Your task to perform on an android device: Clear all items from cart on walmart. Search for "logitech g502" on walmart, select the first entry, and add it to the cart. Image 0: 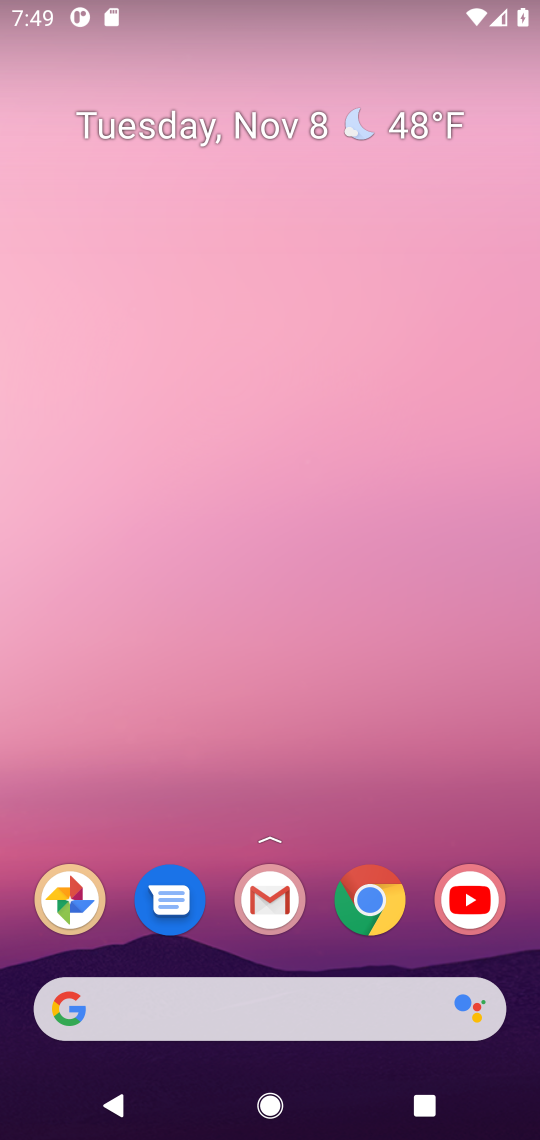
Step 0: click (310, 373)
Your task to perform on an android device: Clear all items from cart on walmart. Search for "logitech g502" on walmart, select the first entry, and add it to the cart. Image 1: 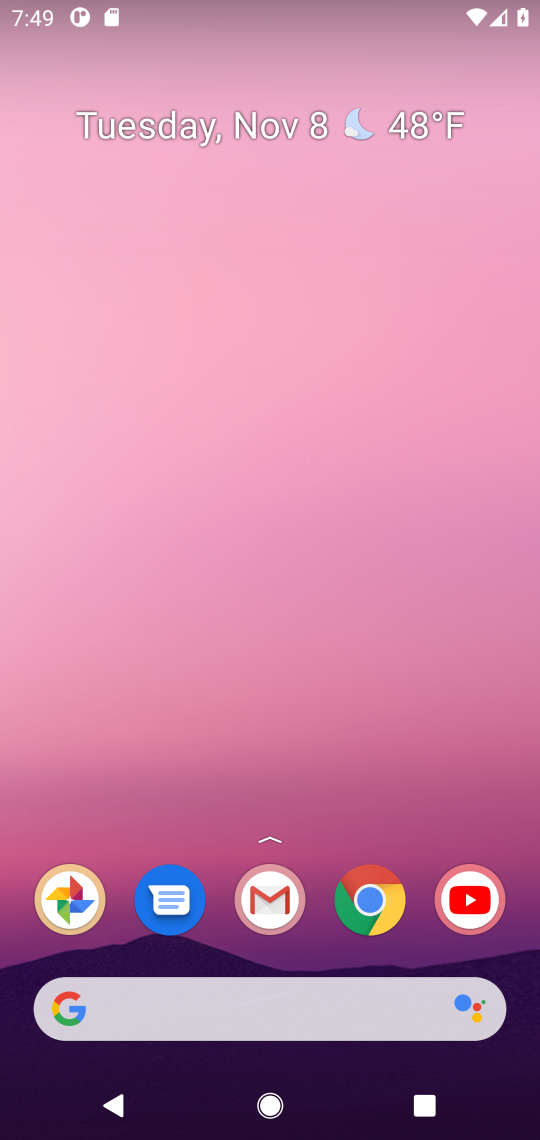
Step 1: drag from (247, 1049) to (226, 299)
Your task to perform on an android device: Clear all items from cart on walmart. Search for "logitech g502" on walmart, select the first entry, and add it to the cart. Image 2: 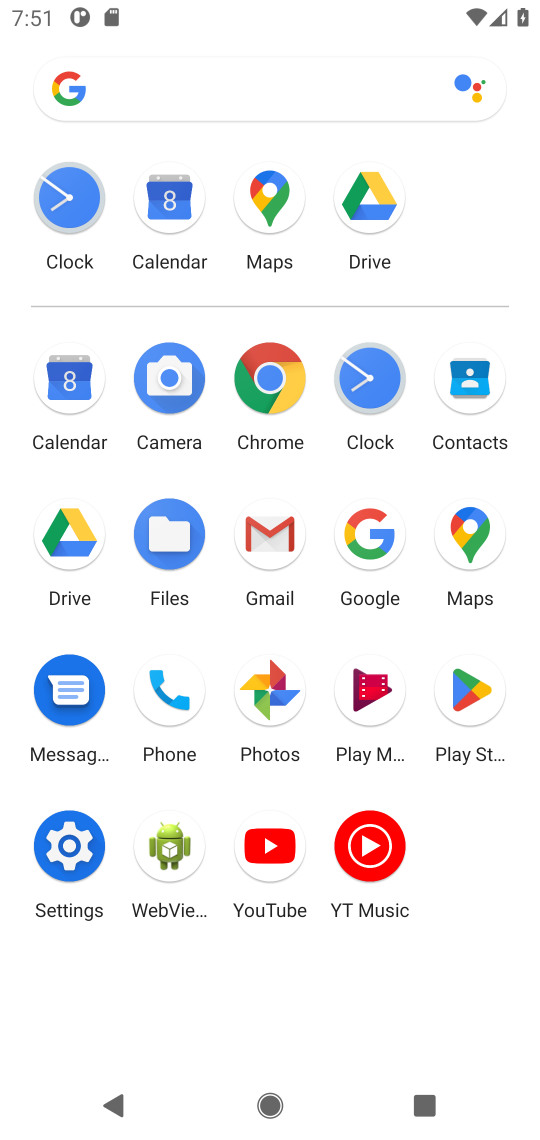
Step 2: click (379, 519)
Your task to perform on an android device: Clear all items from cart on walmart. Search for "logitech g502" on walmart, select the first entry, and add it to the cart. Image 3: 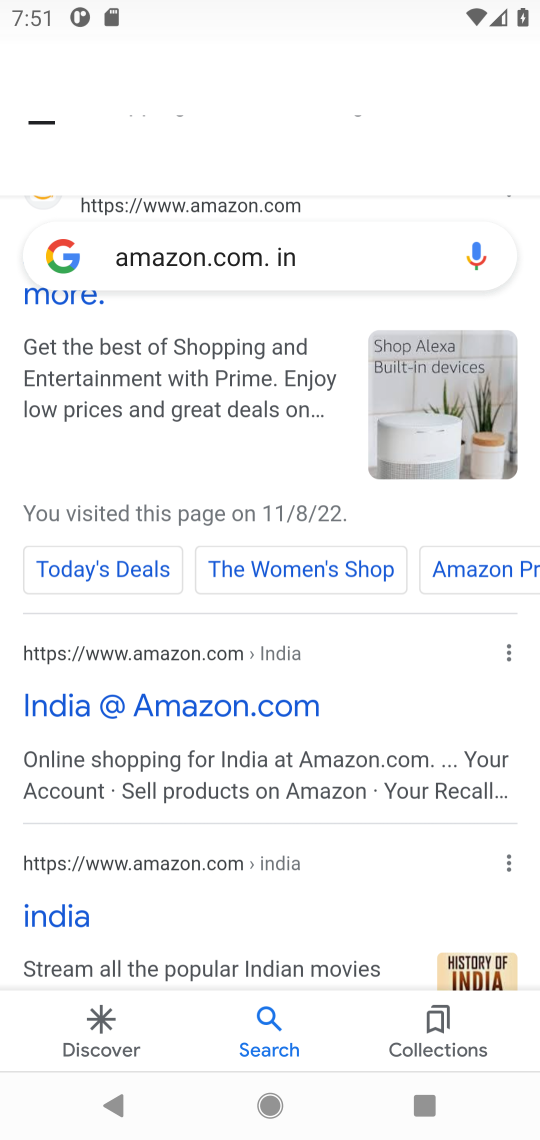
Step 3: click (275, 250)
Your task to perform on an android device: Clear all items from cart on walmart. Search for "logitech g502" on walmart, select the first entry, and add it to the cart. Image 4: 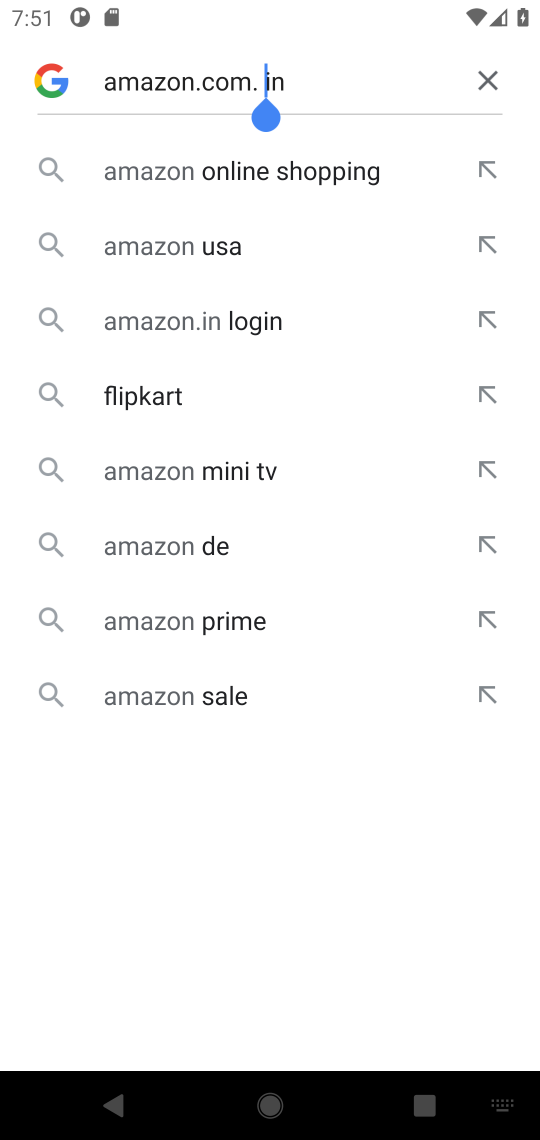
Step 4: click (473, 76)
Your task to perform on an android device: Clear all items from cart on walmart. Search for "logitech g502" on walmart, select the first entry, and add it to the cart. Image 5: 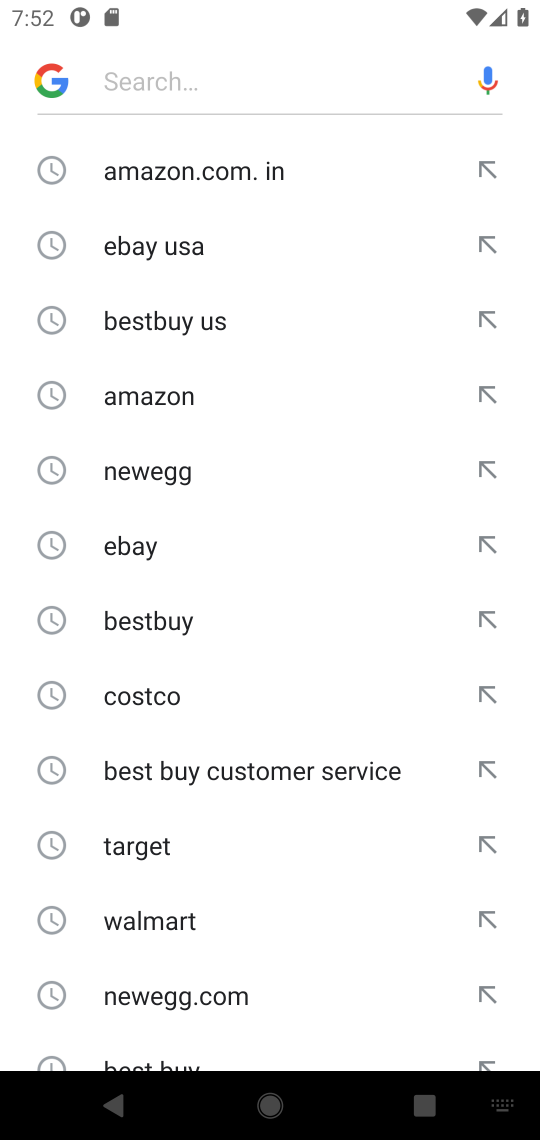
Step 5: click (210, 71)
Your task to perform on an android device: Clear all items from cart on walmart. Search for "logitech g502" on walmart, select the first entry, and add it to the cart. Image 6: 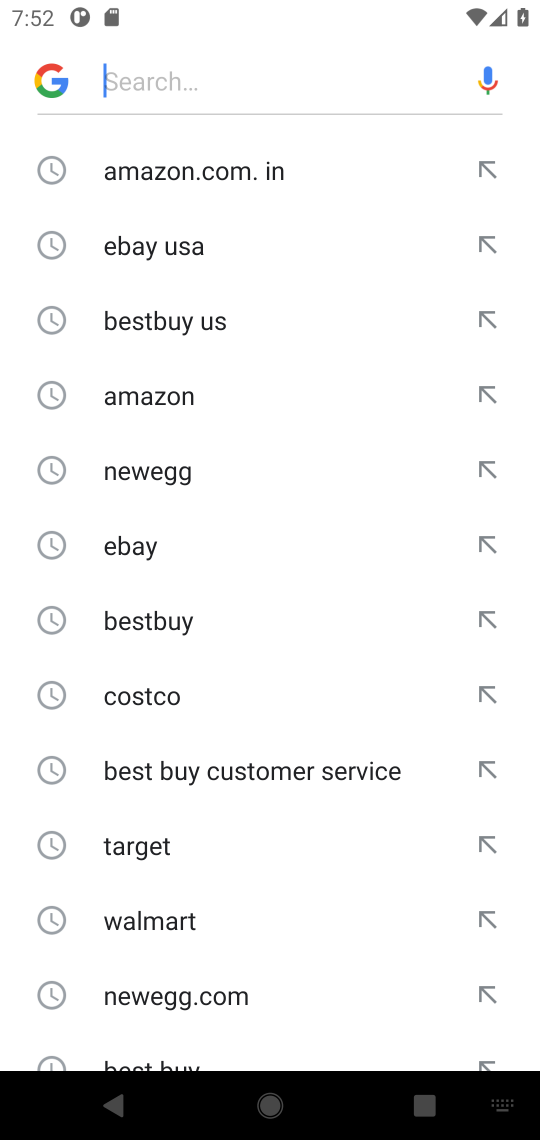
Step 6: type "walmart "
Your task to perform on an android device: Clear all items from cart on walmart. Search for "logitech g502" on walmart, select the first entry, and add it to the cart. Image 7: 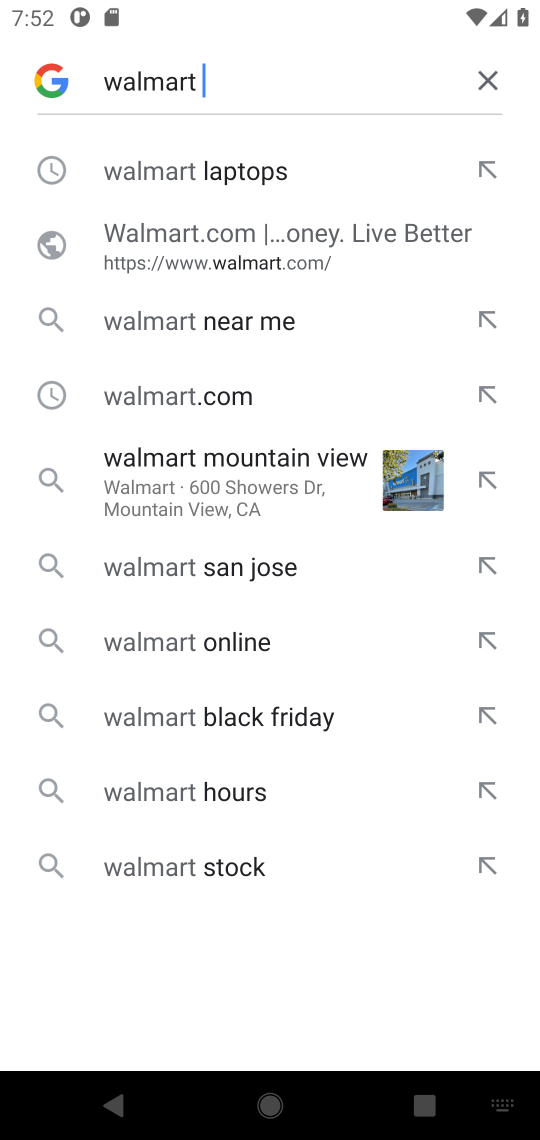
Step 7: drag from (168, 163) to (43, 522)
Your task to perform on an android device: Clear all items from cart on walmart. Search for "logitech g502" on walmart, select the first entry, and add it to the cart. Image 8: 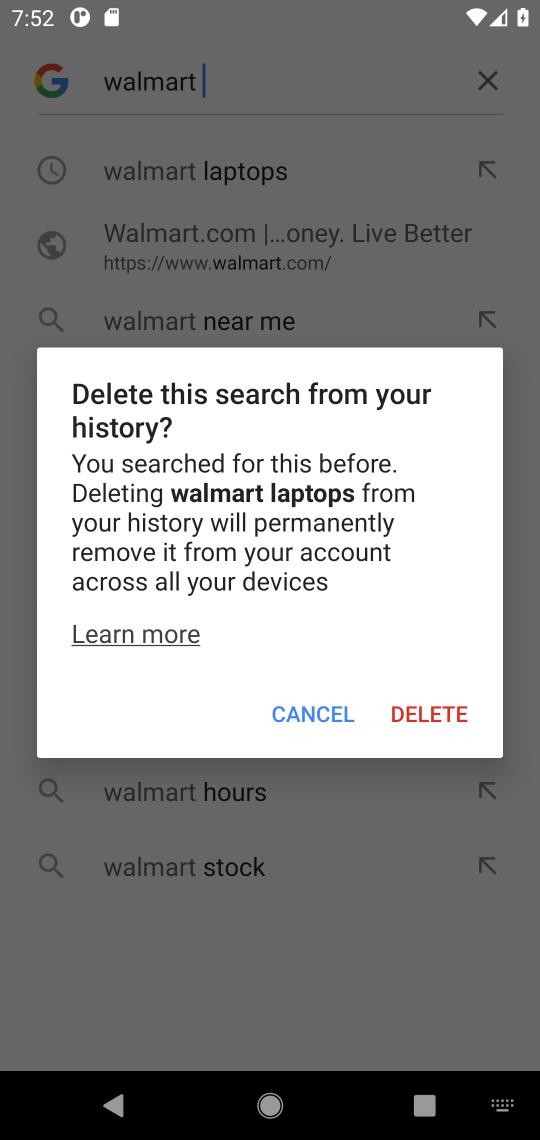
Step 8: click (282, 727)
Your task to perform on an android device: Clear all items from cart on walmart. Search for "logitech g502" on walmart, select the first entry, and add it to the cart. Image 9: 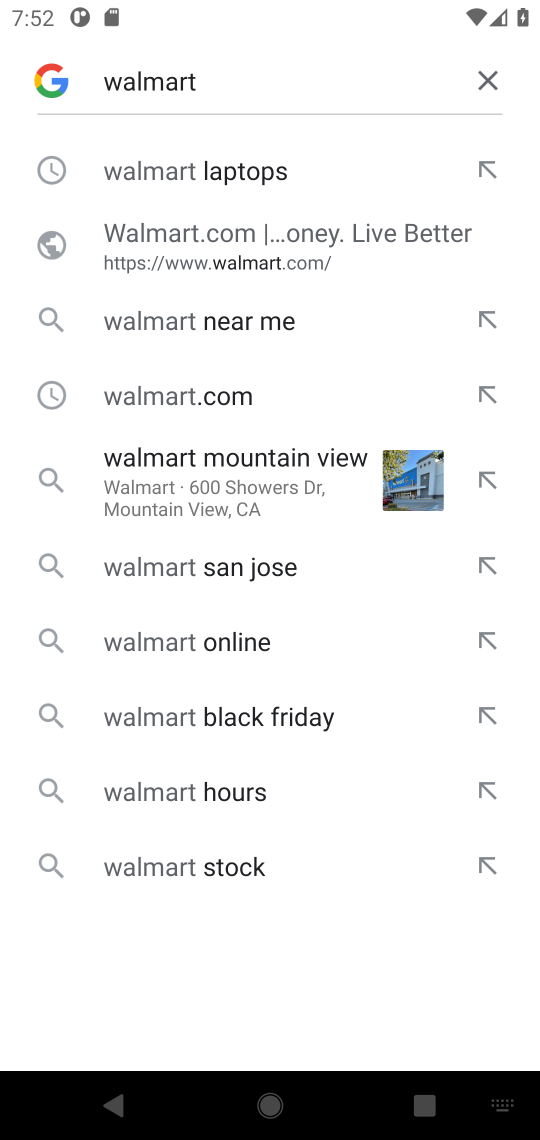
Step 9: click (201, 228)
Your task to perform on an android device: Clear all items from cart on walmart. Search for "logitech g502" on walmart, select the first entry, and add it to the cart. Image 10: 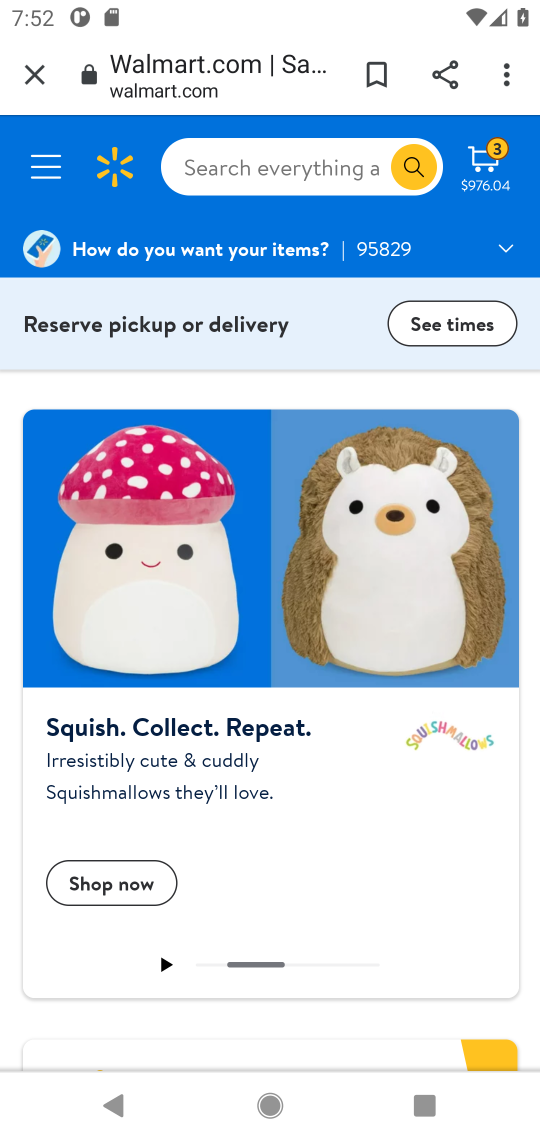
Step 10: click (228, 156)
Your task to perform on an android device: Clear all items from cart on walmart. Search for "logitech g502" on walmart, select the first entry, and add it to the cart. Image 11: 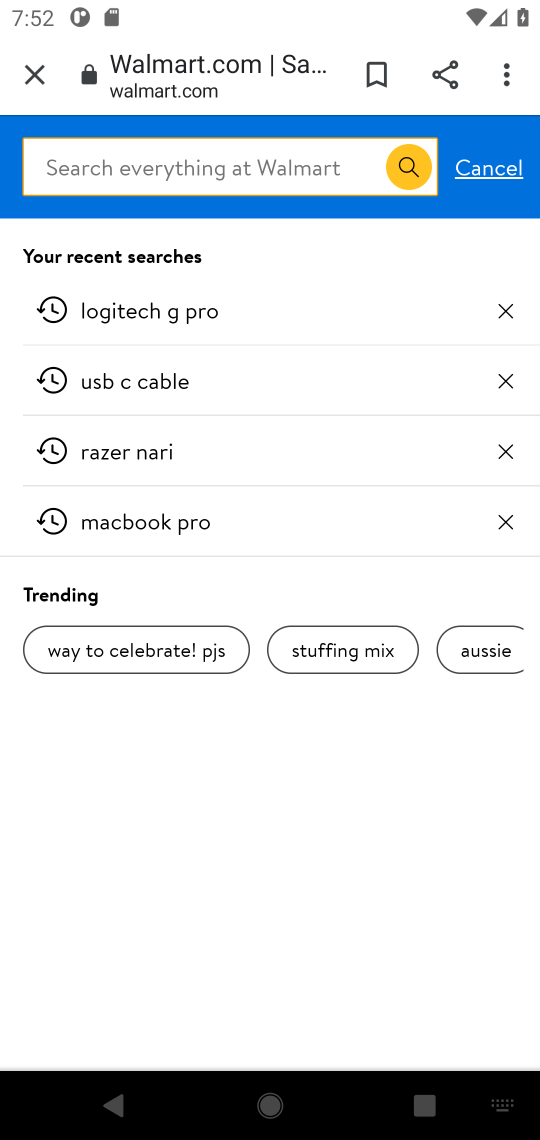
Step 11: click (237, 154)
Your task to perform on an android device: Clear all items from cart on walmart. Search for "logitech g502" on walmart, select the first entry, and add it to the cart. Image 12: 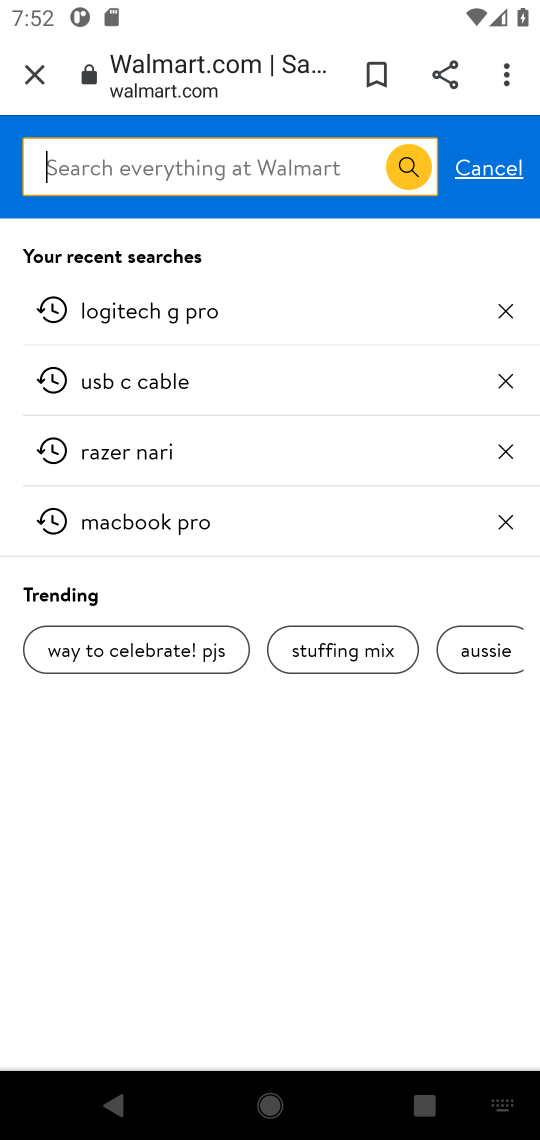
Step 12: click (221, 157)
Your task to perform on an android device: Clear all items from cart on walmart. Search for "logitech g502" on walmart, select the first entry, and add it to the cart. Image 13: 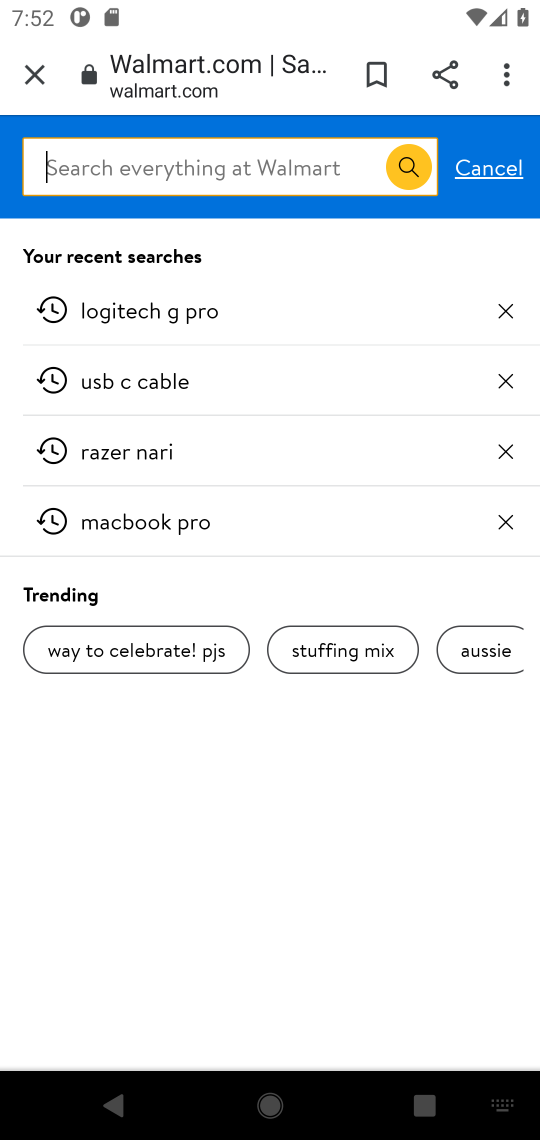
Step 13: type ""logitech g502 "
Your task to perform on an android device: Clear all items from cart on walmart. Search for "logitech g502" on walmart, select the first entry, and add it to the cart. Image 14: 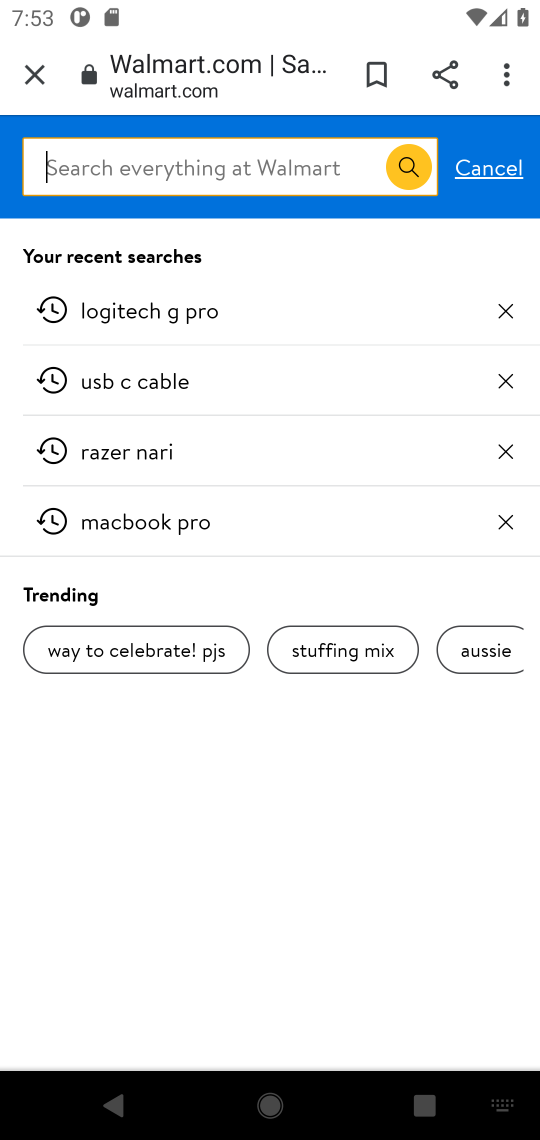
Step 14: click (235, 153)
Your task to perform on an android device: Clear all items from cart on walmart. Search for "logitech g502" on walmart, select the first entry, and add it to the cart. Image 15: 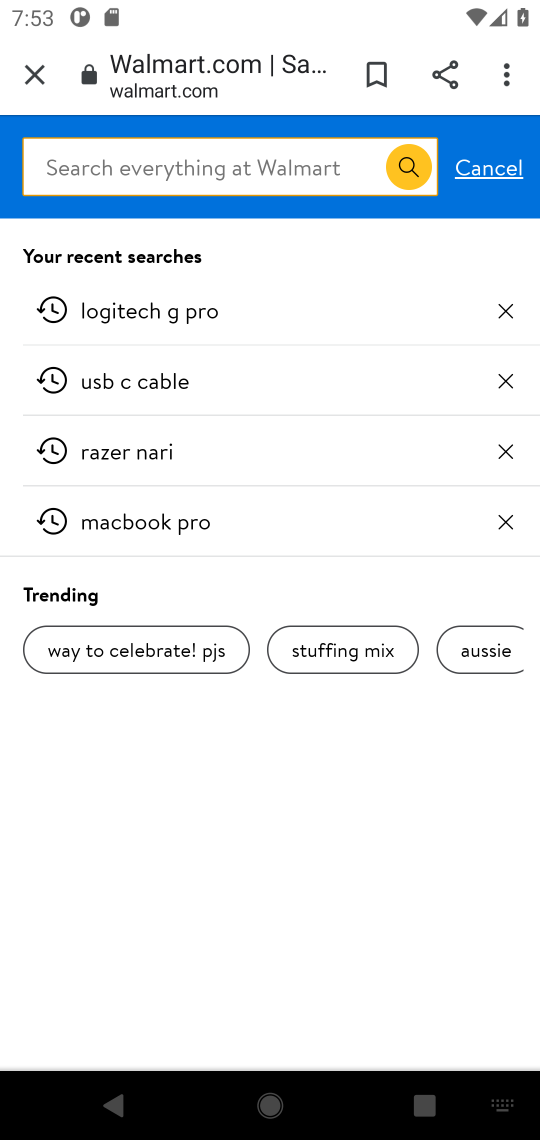
Step 15: type "logitech g502 "
Your task to perform on an android device: Clear all items from cart on walmart. Search for "logitech g502" on walmart, select the first entry, and add it to the cart. Image 16: 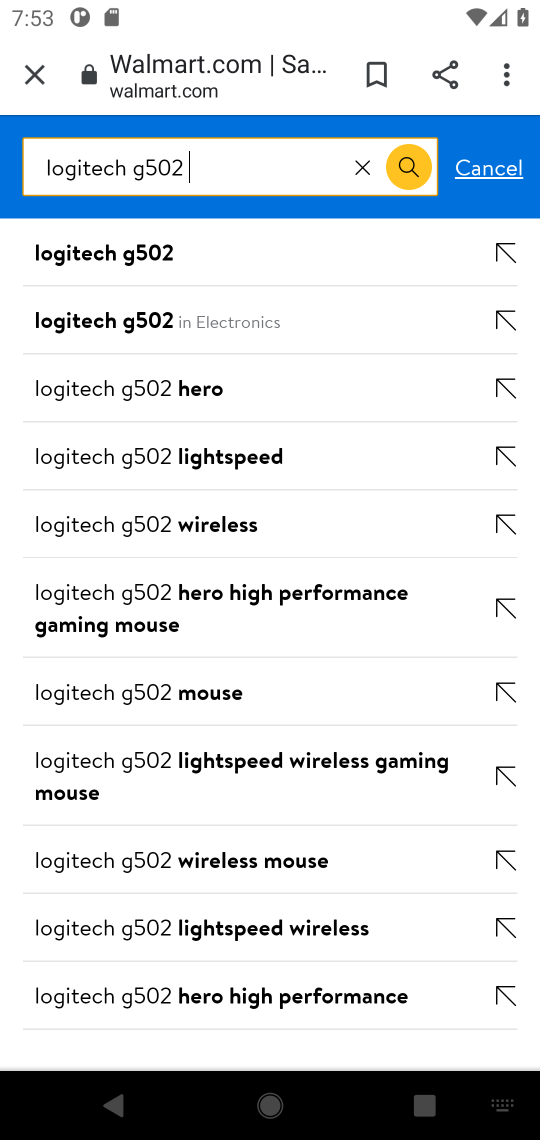
Step 16: click (189, 237)
Your task to perform on an android device: Clear all items from cart on walmart. Search for "logitech g502" on walmart, select the first entry, and add it to the cart. Image 17: 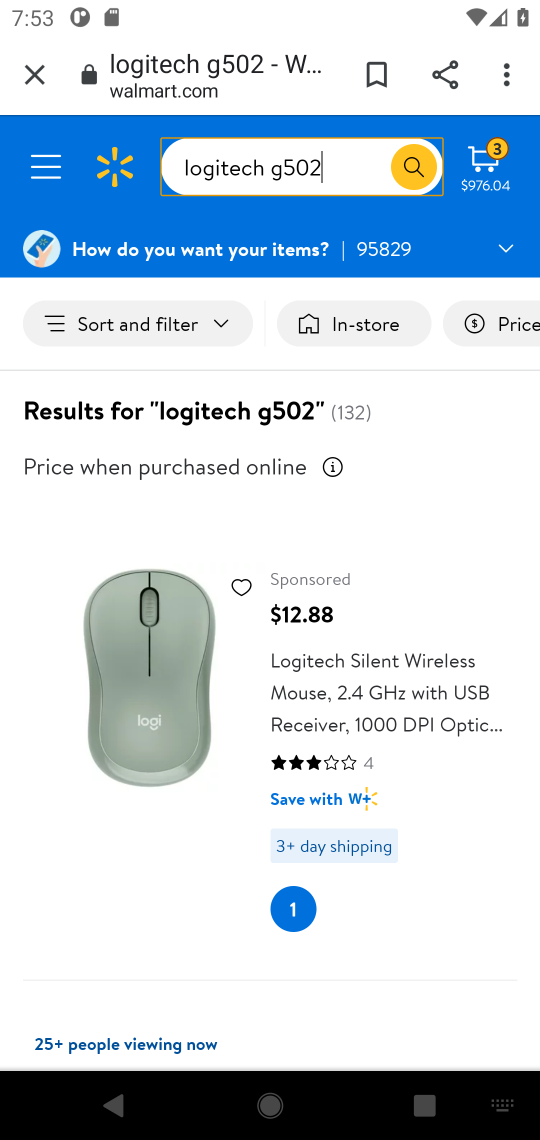
Step 17: drag from (419, 871) to (447, 342)
Your task to perform on an android device: Clear all items from cart on walmart. Search for "logitech g502" on walmart, select the first entry, and add it to the cart. Image 18: 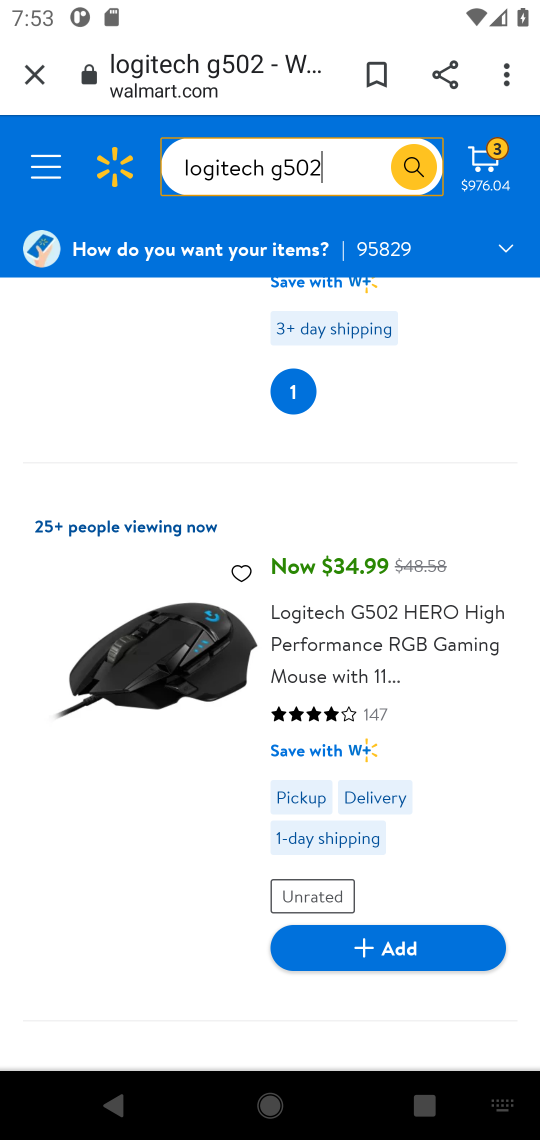
Step 18: click (384, 950)
Your task to perform on an android device: Clear all items from cart on walmart. Search for "logitech g502" on walmart, select the first entry, and add it to the cart. Image 19: 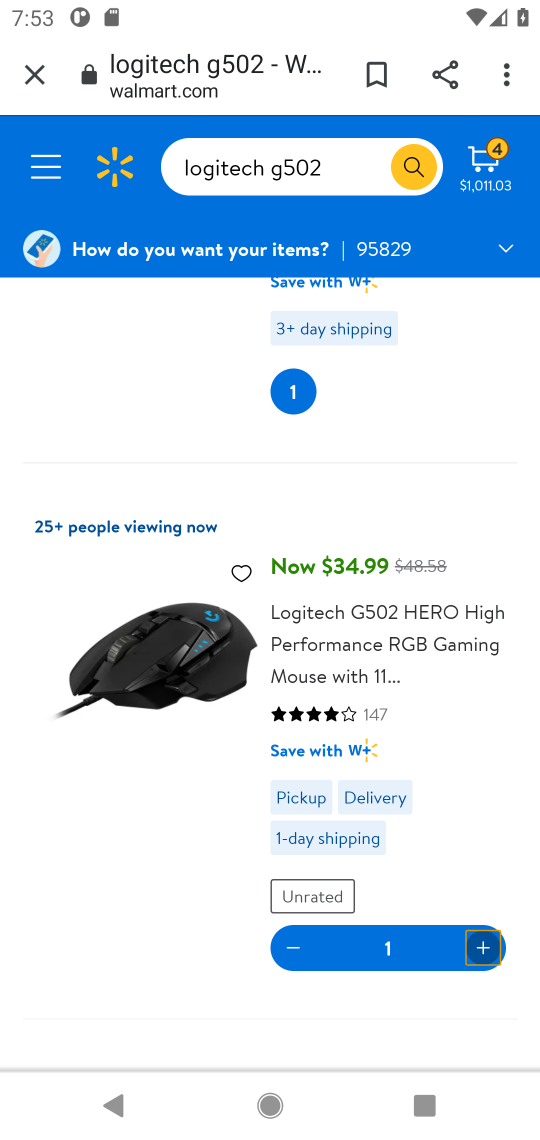
Step 19: task complete